Your task to perform on an android device: Toggle the flashlight Image 0: 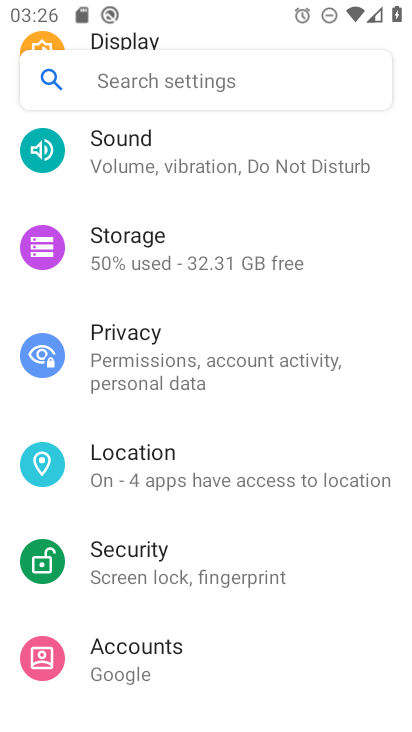
Step 0: click (134, 162)
Your task to perform on an android device: Toggle the flashlight Image 1: 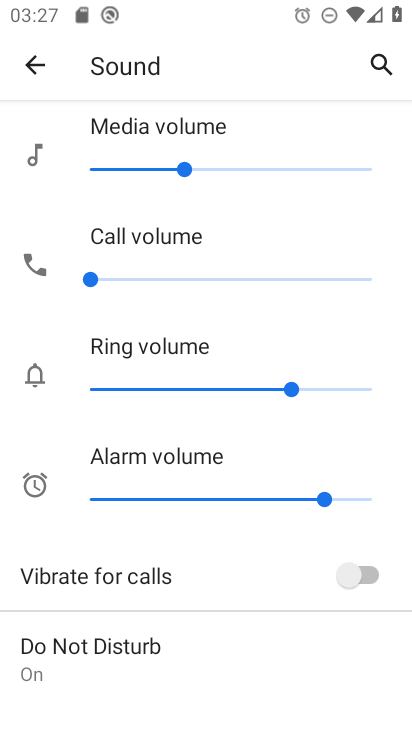
Step 1: task complete